Your task to perform on an android device: turn on airplane mode Image 0: 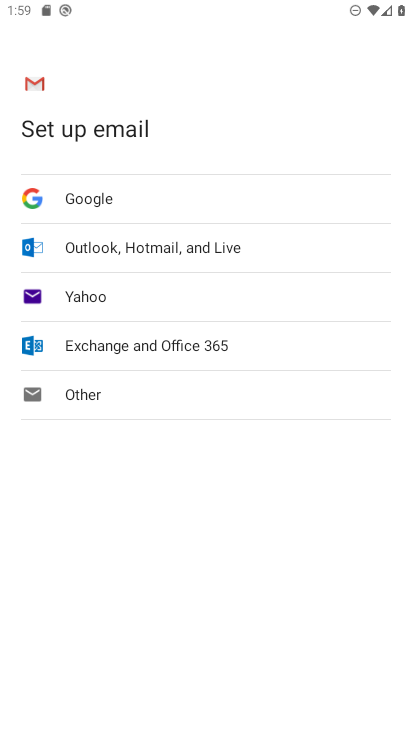
Step 0: press home button
Your task to perform on an android device: turn on airplane mode Image 1: 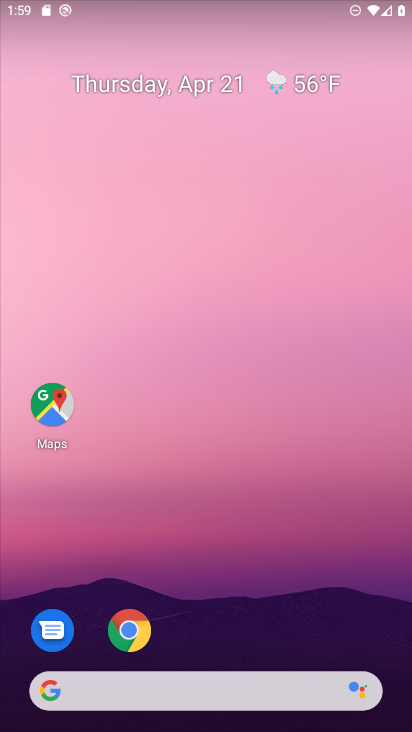
Step 1: drag from (216, 614) to (95, 7)
Your task to perform on an android device: turn on airplane mode Image 2: 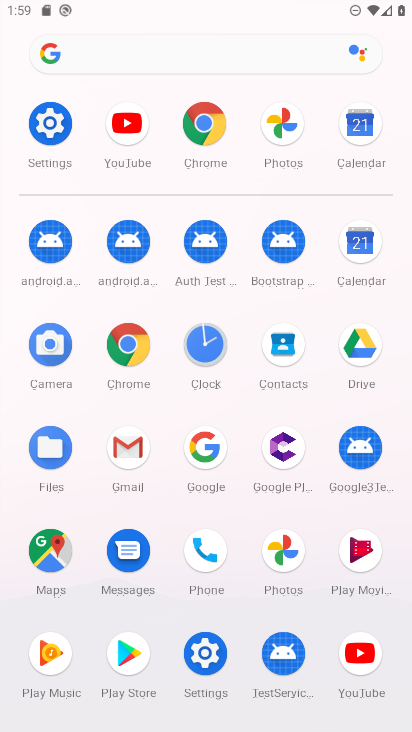
Step 2: click (62, 157)
Your task to perform on an android device: turn on airplane mode Image 3: 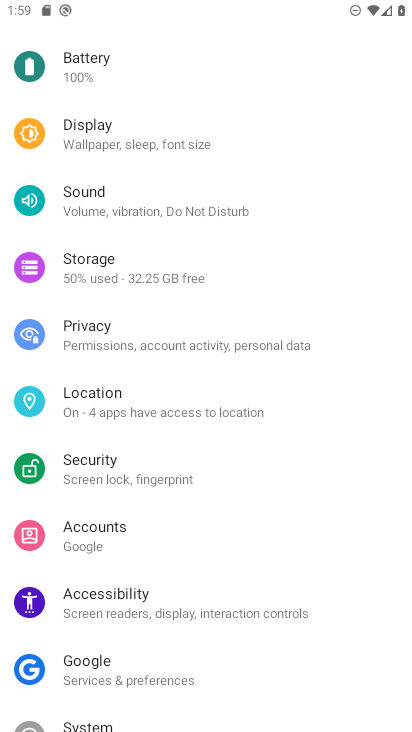
Step 3: drag from (133, 98) to (108, 615)
Your task to perform on an android device: turn on airplane mode Image 4: 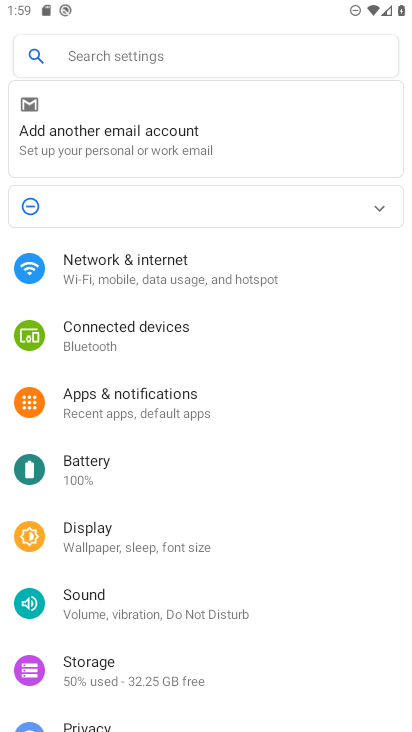
Step 4: click (131, 271)
Your task to perform on an android device: turn on airplane mode Image 5: 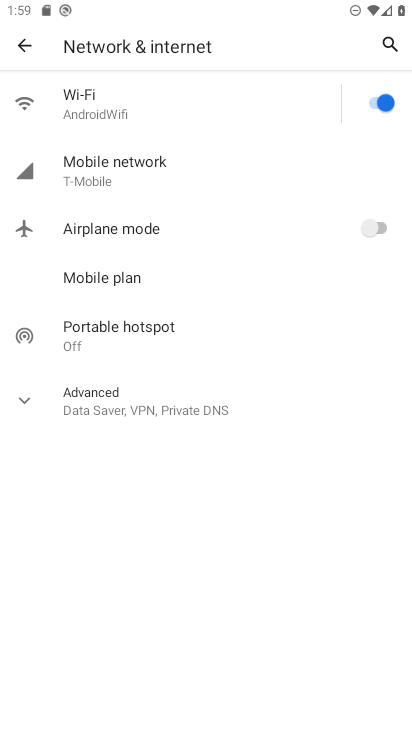
Step 5: click (391, 218)
Your task to perform on an android device: turn on airplane mode Image 6: 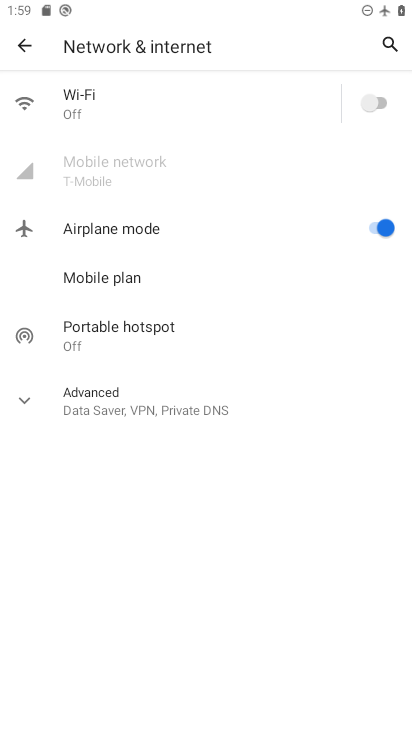
Step 6: task complete